Your task to perform on an android device: Do I have any events tomorrow? Image 0: 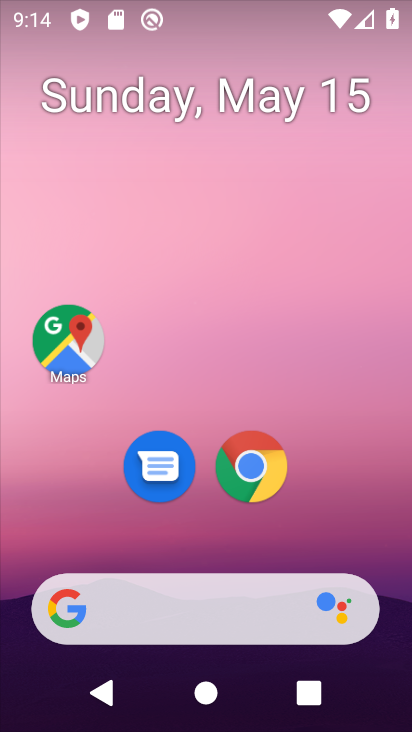
Step 0: drag from (353, 524) to (185, 1)
Your task to perform on an android device: Do I have any events tomorrow? Image 1: 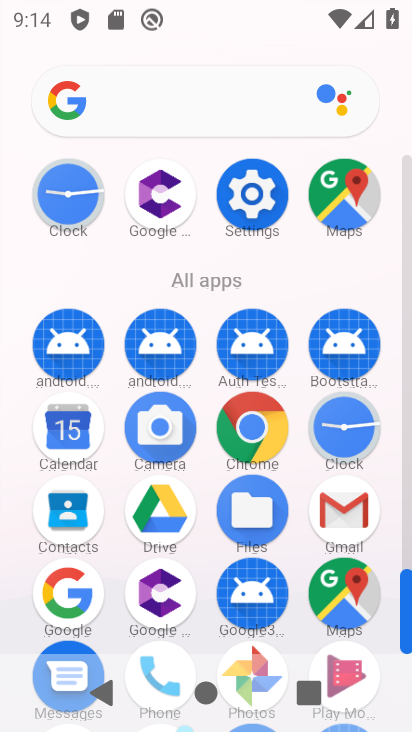
Step 1: click (75, 427)
Your task to perform on an android device: Do I have any events tomorrow? Image 2: 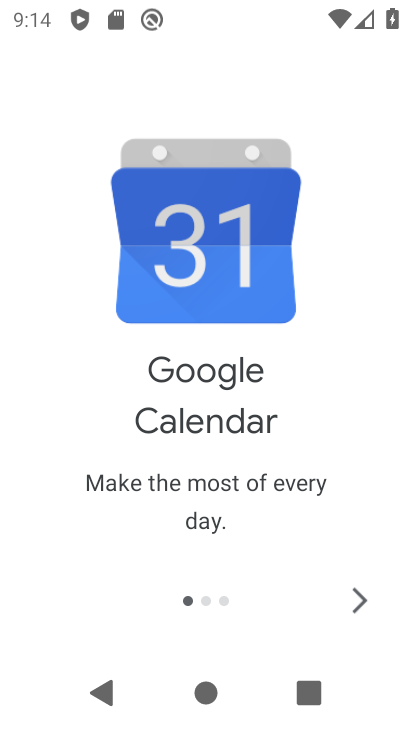
Step 2: click (364, 600)
Your task to perform on an android device: Do I have any events tomorrow? Image 3: 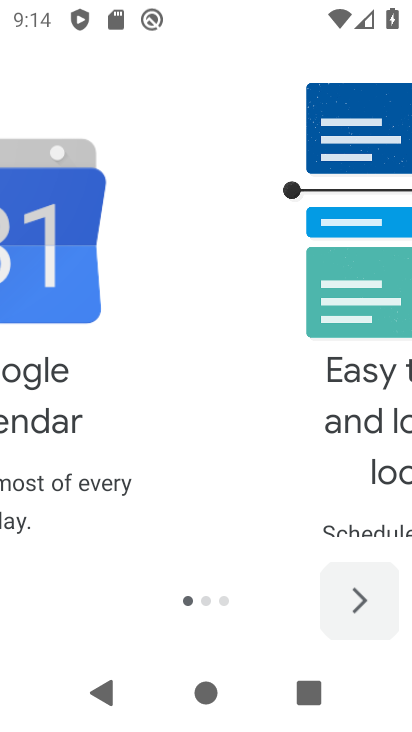
Step 3: click (363, 598)
Your task to perform on an android device: Do I have any events tomorrow? Image 4: 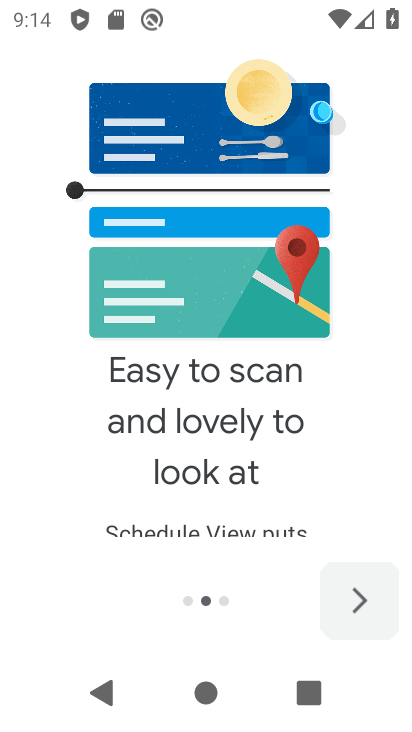
Step 4: click (363, 598)
Your task to perform on an android device: Do I have any events tomorrow? Image 5: 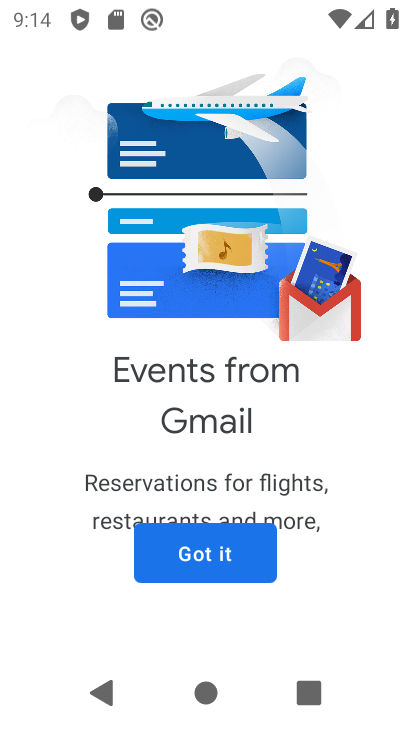
Step 5: click (222, 548)
Your task to perform on an android device: Do I have any events tomorrow? Image 6: 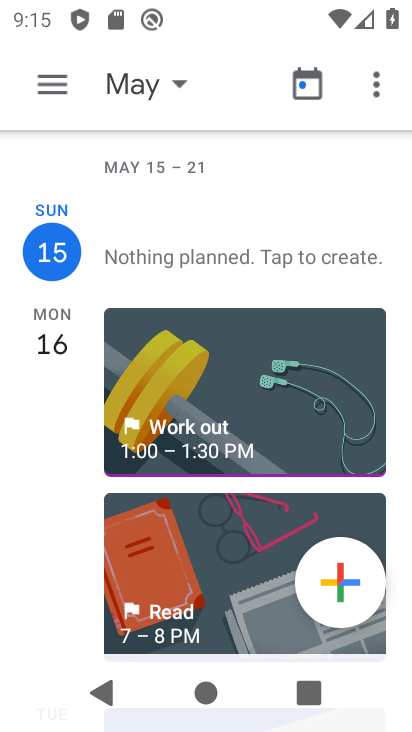
Step 6: click (50, 346)
Your task to perform on an android device: Do I have any events tomorrow? Image 7: 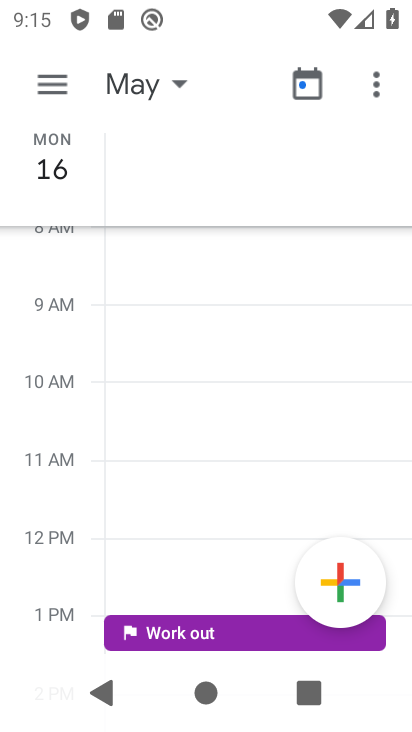
Step 7: task complete